Your task to perform on an android device: read, delete, or share a saved page in the chrome app Image 0: 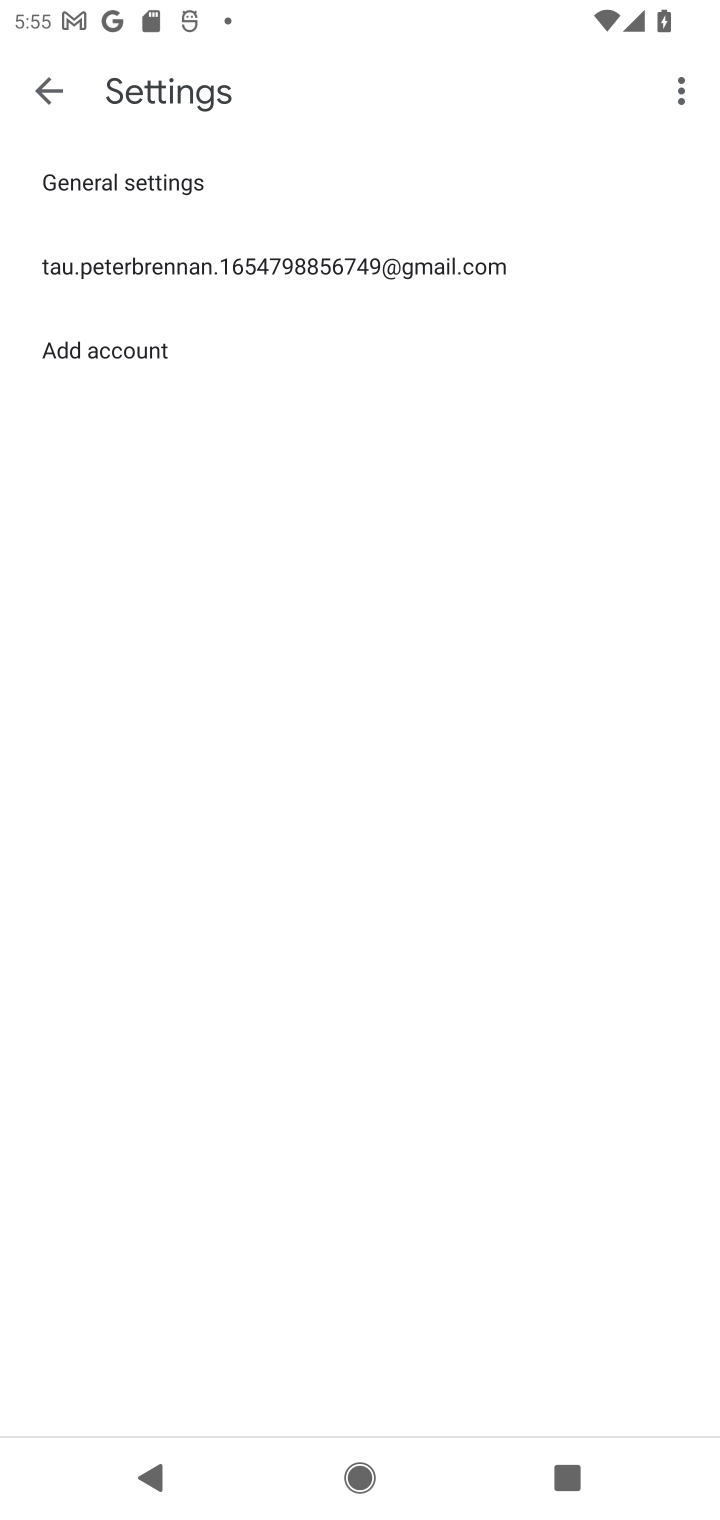
Step 0: press home button
Your task to perform on an android device: read, delete, or share a saved page in the chrome app Image 1: 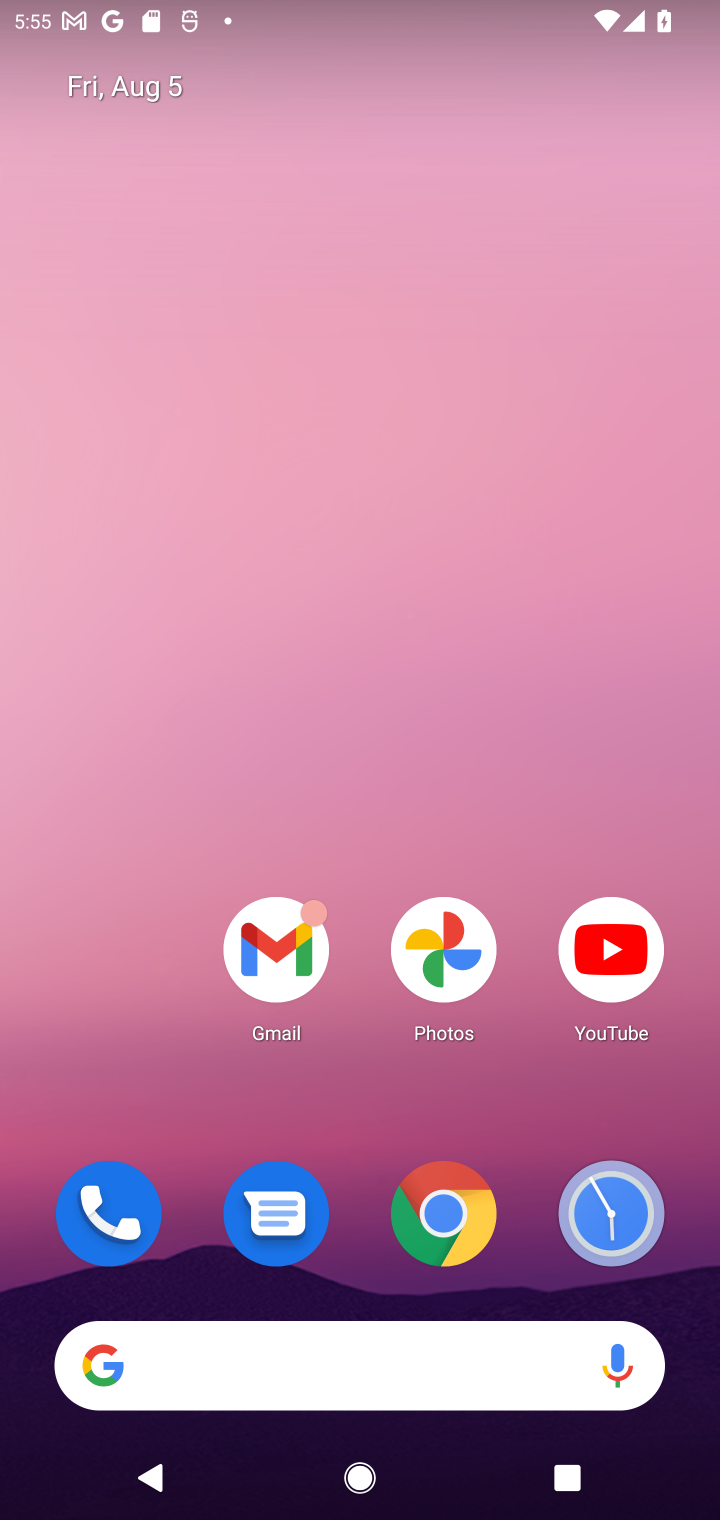
Step 1: click (477, 1218)
Your task to perform on an android device: read, delete, or share a saved page in the chrome app Image 2: 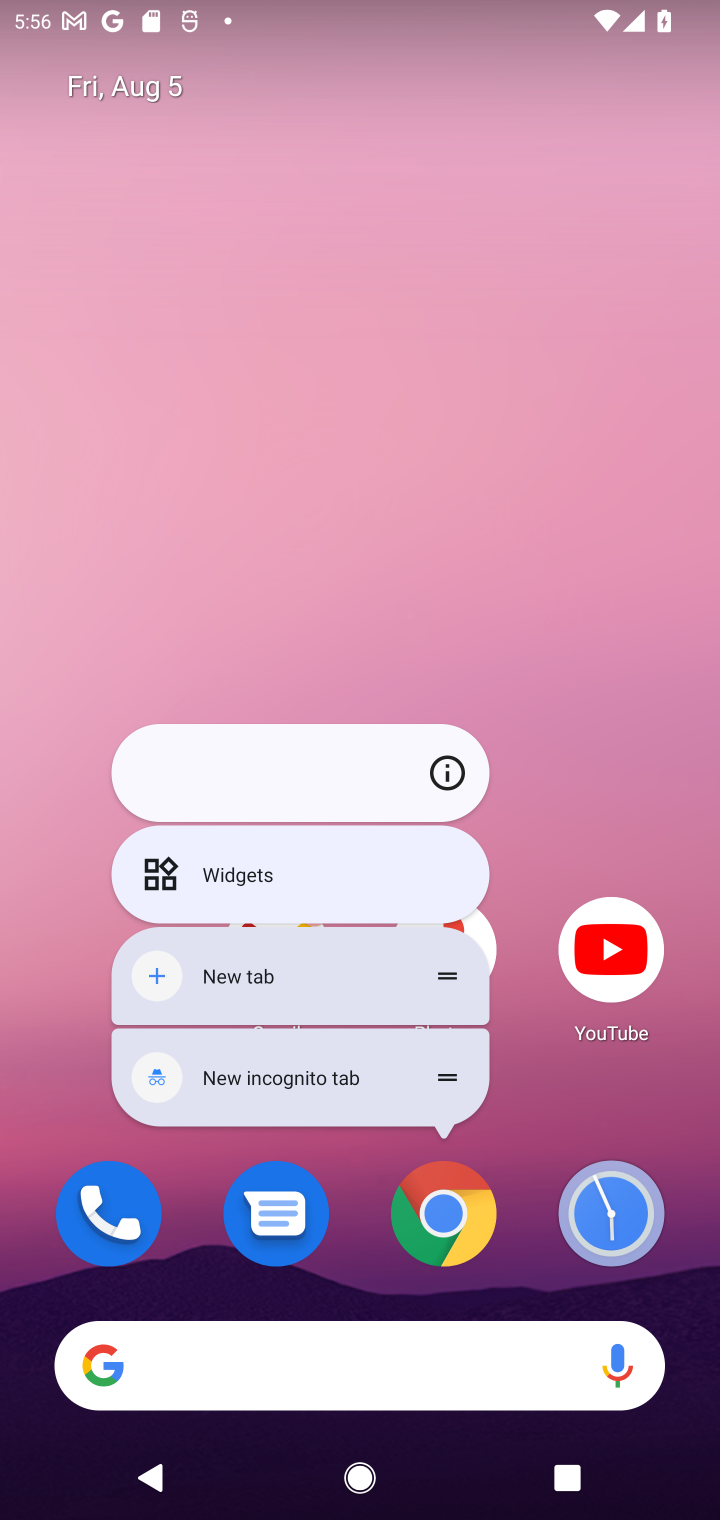
Step 2: click (482, 1221)
Your task to perform on an android device: read, delete, or share a saved page in the chrome app Image 3: 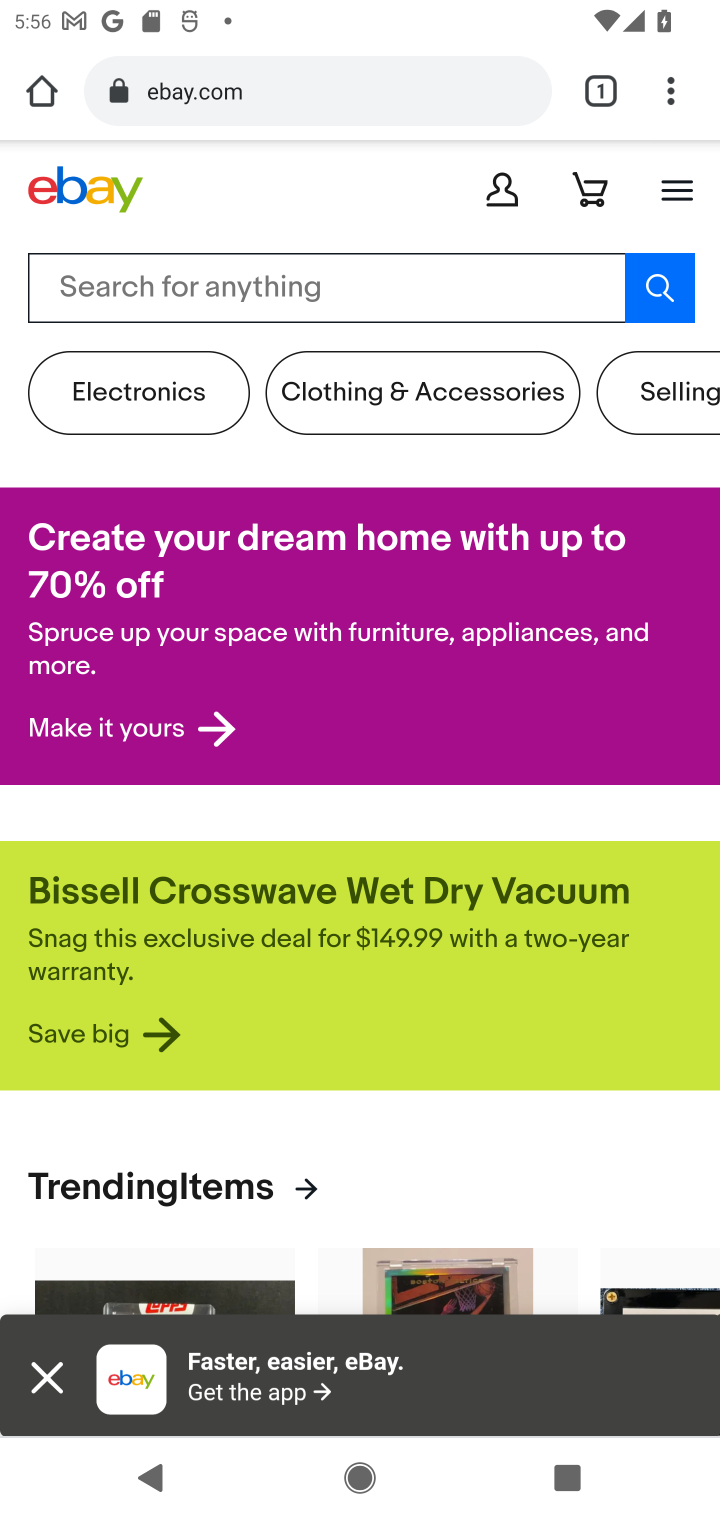
Step 3: click (482, 1221)
Your task to perform on an android device: read, delete, or share a saved page in the chrome app Image 4: 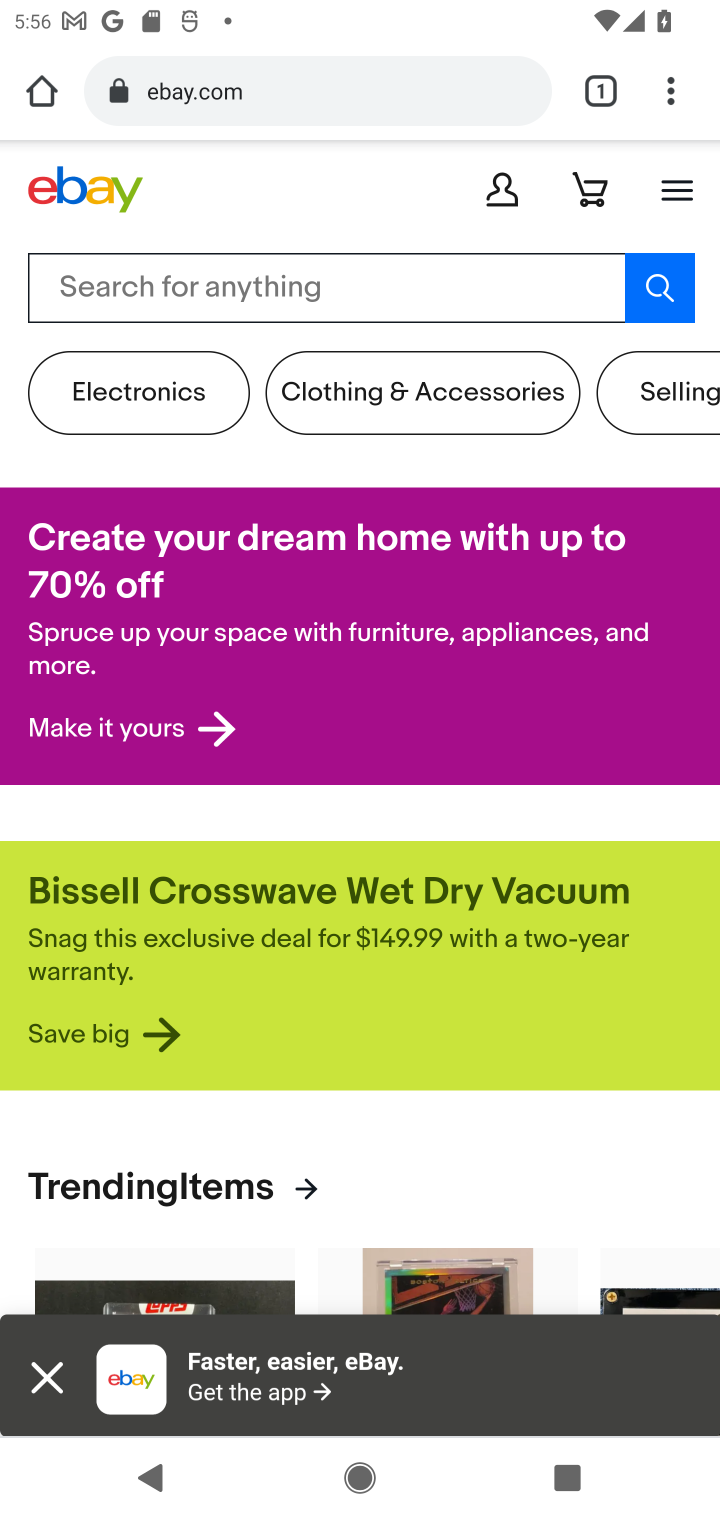
Step 4: click (677, 107)
Your task to perform on an android device: read, delete, or share a saved page in the chrome app Image 5: 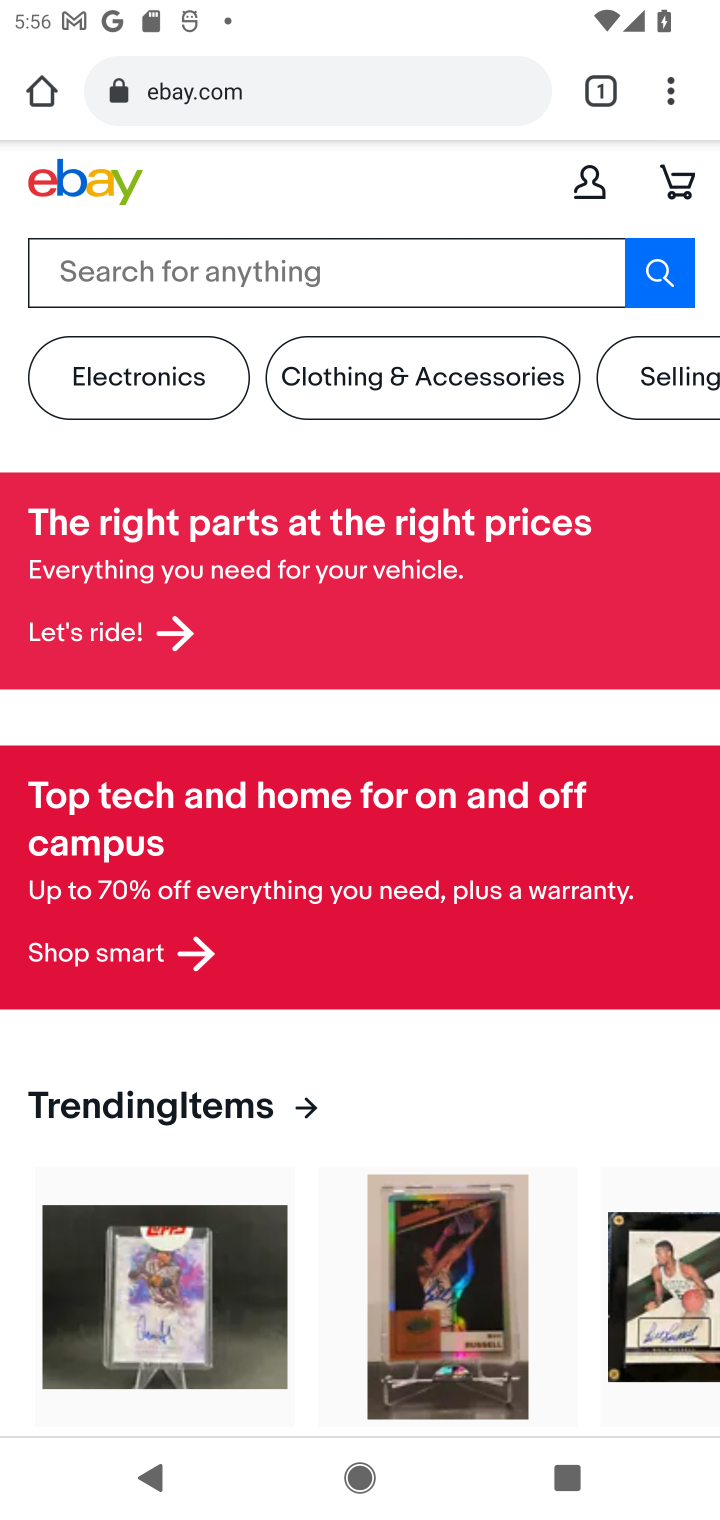
Step 5: click (656, 91)
Your task to perform on an android device: read, delete, or share a saved page in the chrome app Image 6: 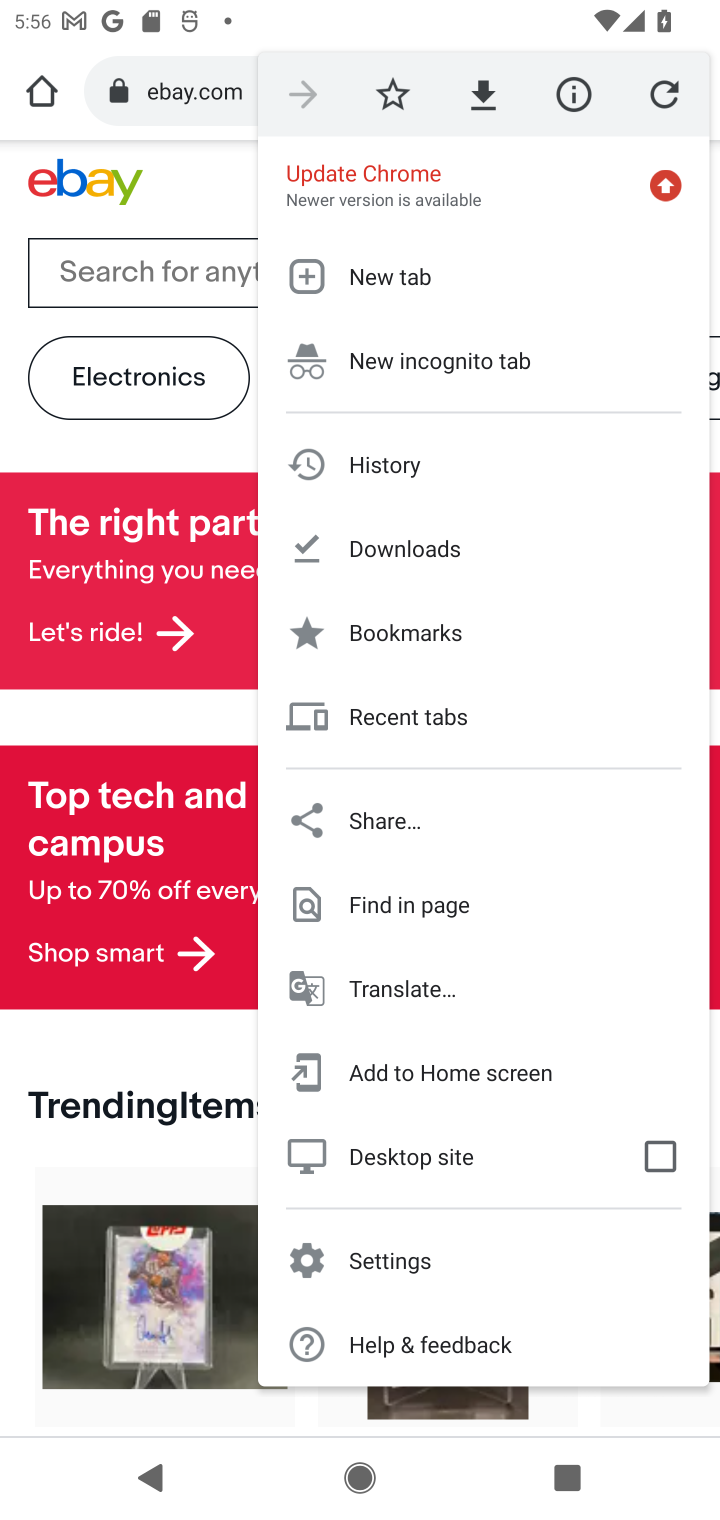
Step 6: task complete